Your task to perform on an android device: toggle javascript in the chrome app Image 0: 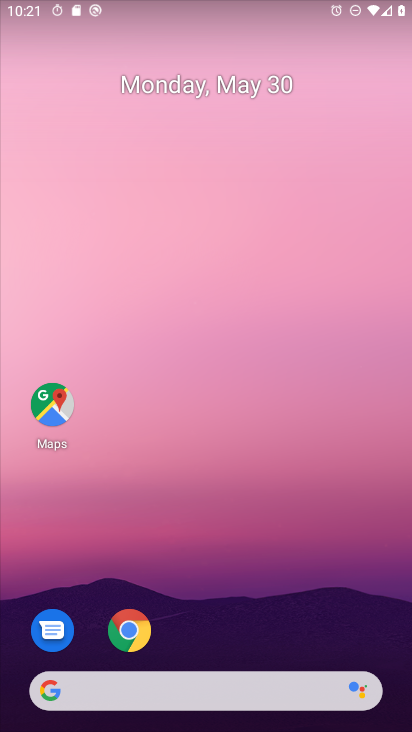
Step 0: drag from (347, 609) to (318, 31)
Your task to perform on an android device: toggle javascript in the chrome app Image 1: 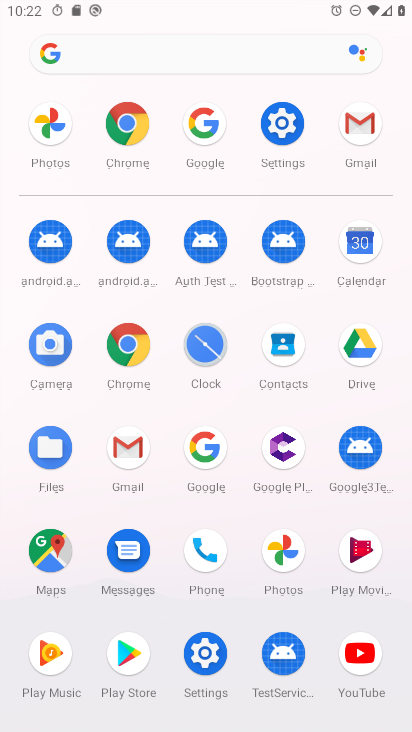
Step 1: click (122, 125)
Your task to perform on an android device: toggle javascript in the chrome app Image 2: 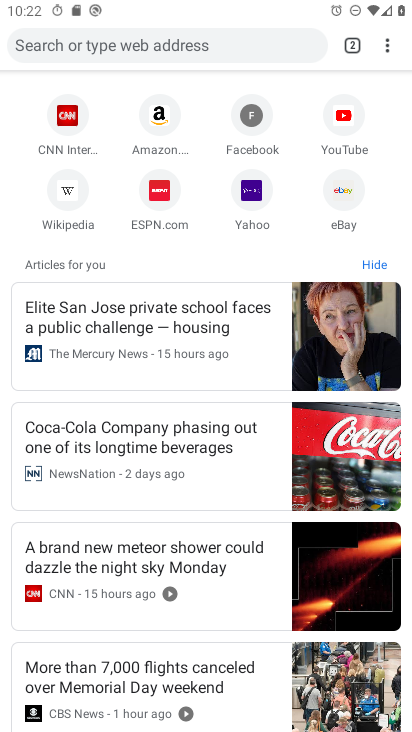
Step 2: click (385, 36)
Your task to perform on an android device: toggle javascript in the chrome app Image 3: 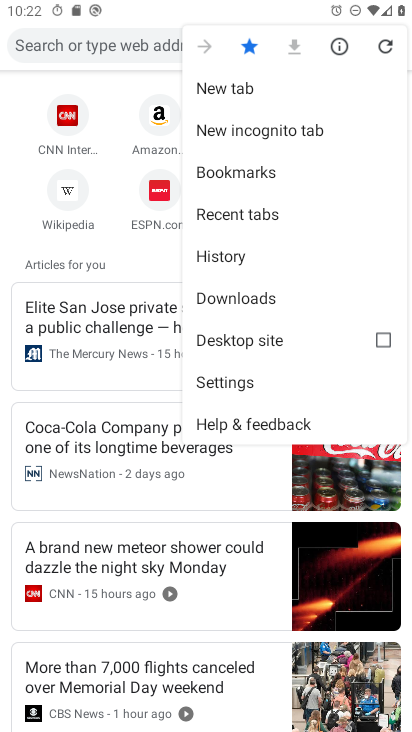
Step 3: click (259, 383)
Your task to perform on an android device: toggle javascript in the chrome app Image 4: 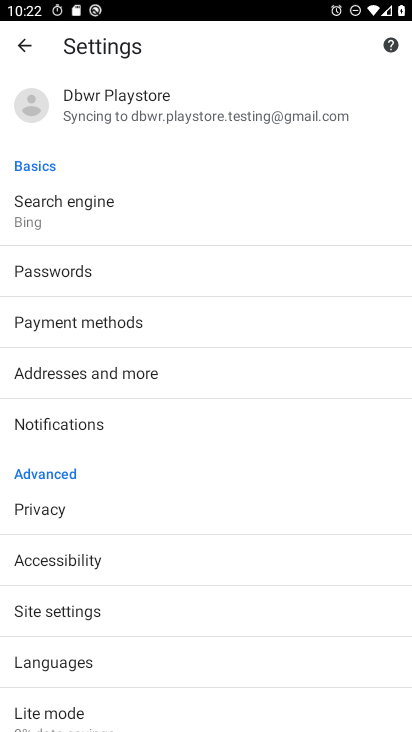
Step 4: click (158, 612)
Your task to perform on an android device: toggle javascript in the chrome app Image 5: 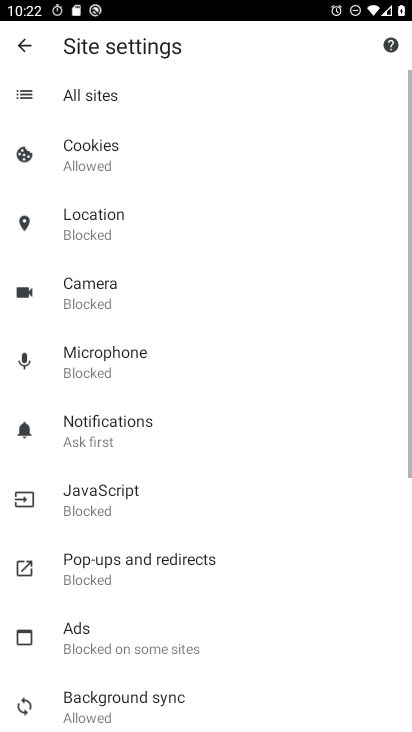
Step 5: click (183, 489)
Your task to perform on an android device: toggle javascript in the chrome app Image 6: 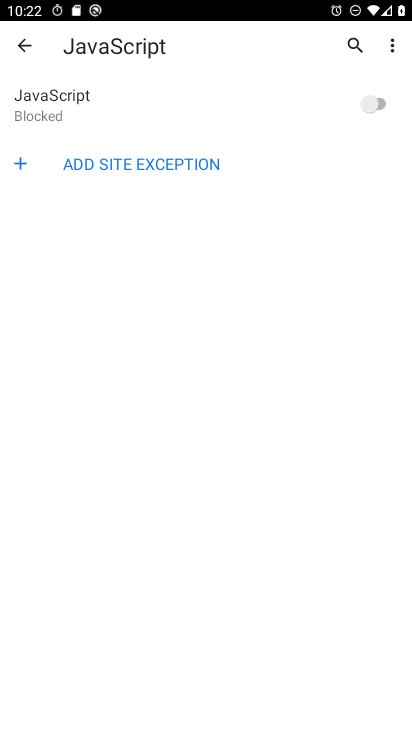
Step 6: click (376, 94)
Your task to perform on an android device: toggle javascript in the chrome app Image 7: 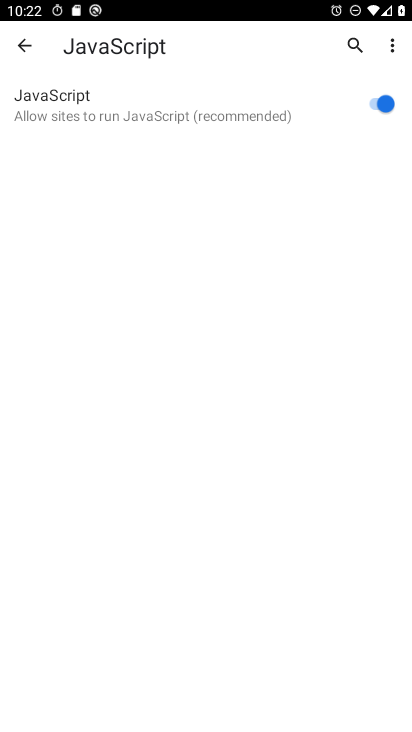
Step 7: task complete